Your task to perform on an android device: Open Google Chrome and click the shortcut for Amazon.com Image 0: 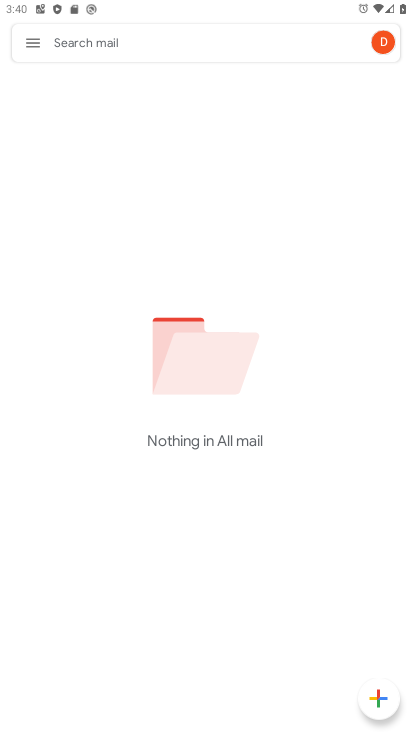
Step 0: press home button
Your task to perform on an android device: Open Google Chrome and click the shortcut for Amazon.com Image 1: 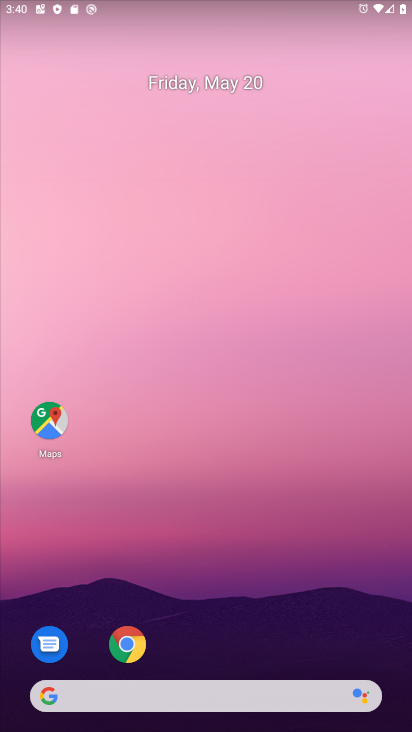
Step 1: click (112, 644)
Your task to perform on an android device: Open Google Chrome and click the shortcut for Amazon.com Image 2: 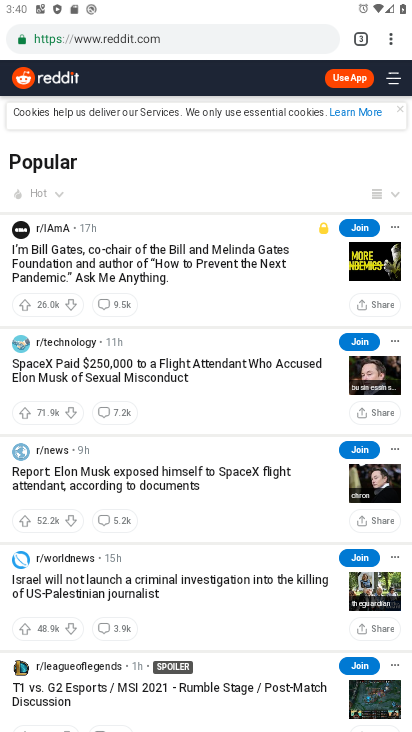
Step 2: click (265, 33)
Your task to perform on an android device: Open Google Chrome and click the shortcut for Amazon.com Image 3: 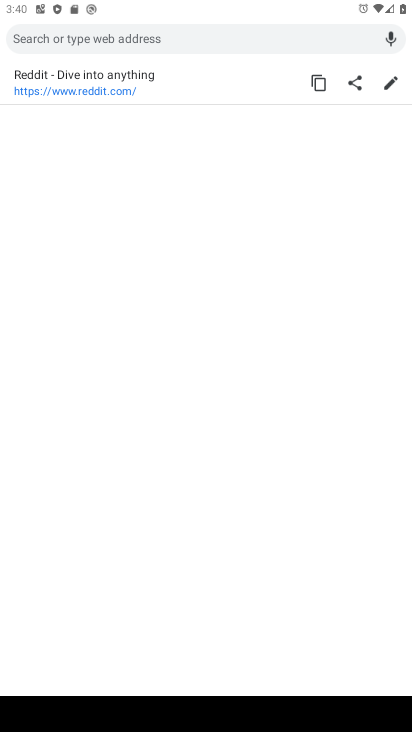
Step 3: type "amazon"
Your task to perform on an android device: Open Google Chrome and click the shortcut for Amazon.com Image 4: 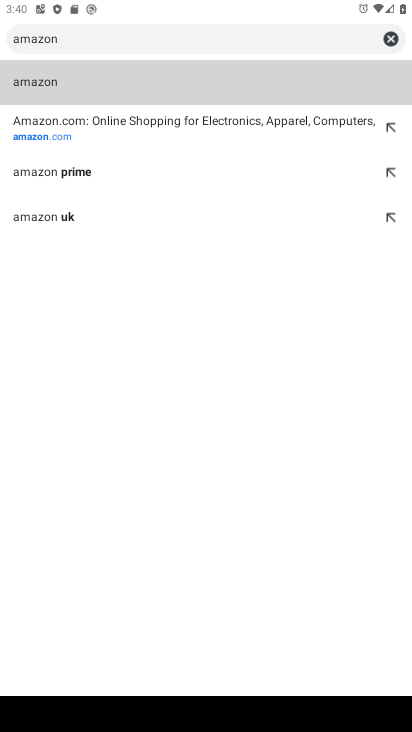
Step 4: click (142, 143)
Your task to perform on an android device: Open Google Chrome and click the shortcut for Amazon.com Image 5: 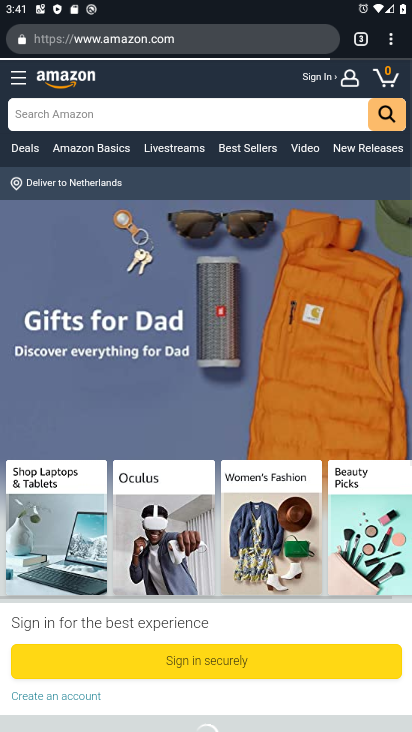
Step 5: task complete